Your task to perform on an android device: Open calendar and show me the third week of next month Image 0: 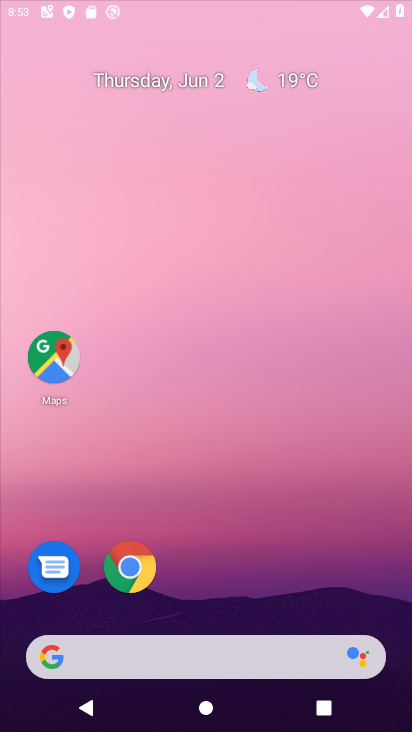
Step 0: press home button
Your task to perform on an android device: Open calendar and show me the third week of next month Image 1: 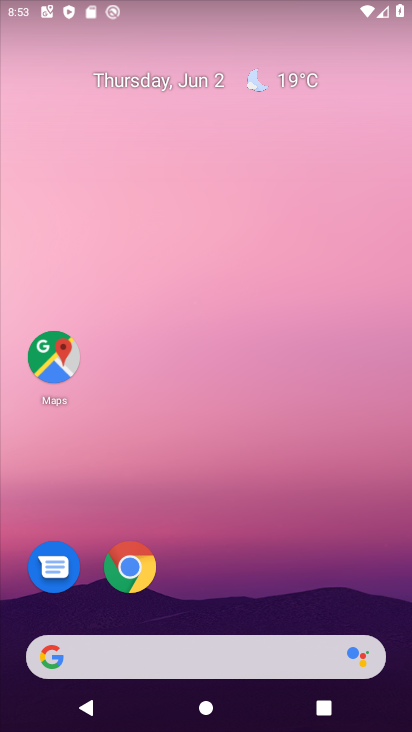
Step 1: drag from (219, 615) to (238, 86)
Your task to perform on an android device: Open calendar and show me the third week of next month Image 2: 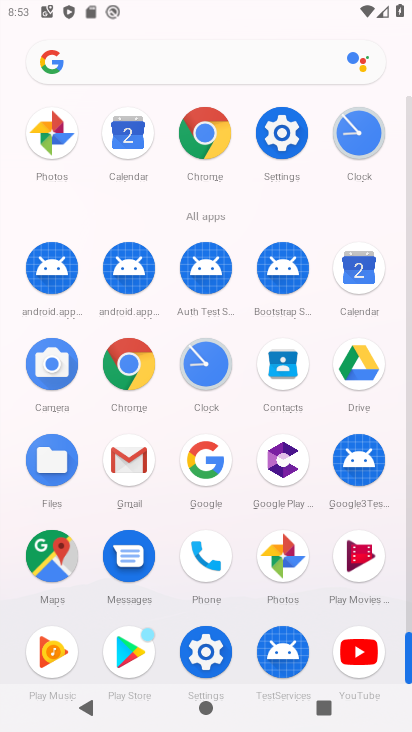
Step 2: click (357, 268)
Your task to perform on an android device: Open calendar and show me the third week of next month Image 3: 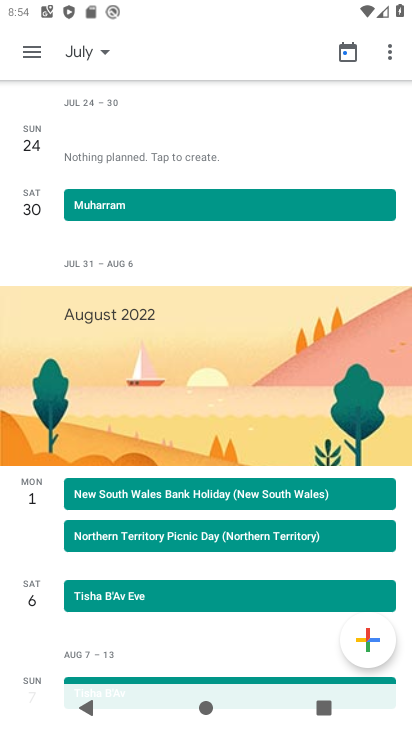
Step 3: click (32, 50)
Your task to perform on an android device: Open calendar and show me the third week of next month Image 4: 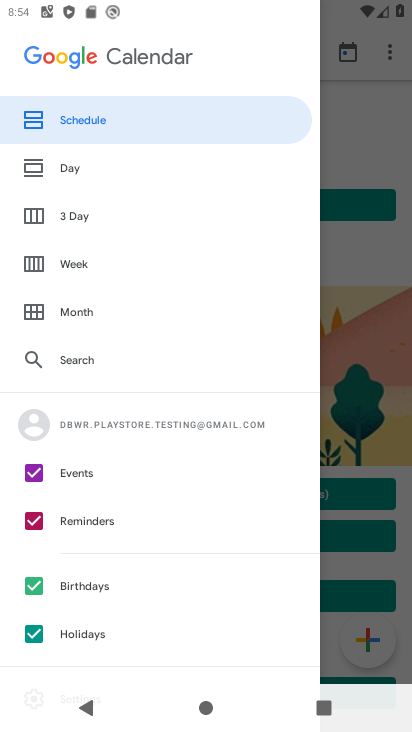
Step 4: click (74, 252)
Your task to perform on an android device: Open calendar and show me the third week of next month Image 5: 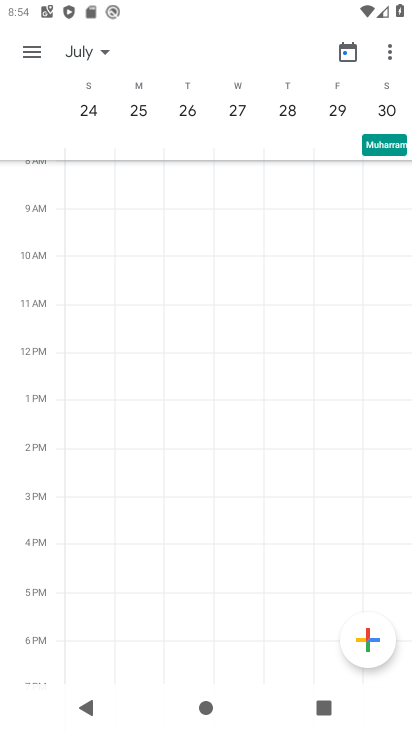
Step 5: drag from (81, 106) to (371, 113)
Your task to perform on an android device: Open calendar and show me the third week of next month Image 6: 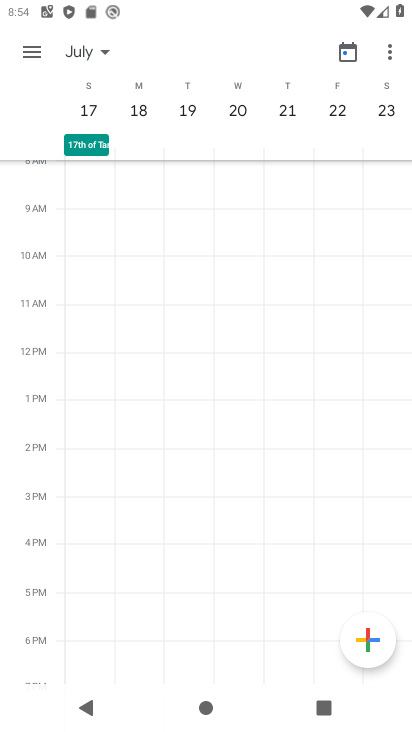
Step 6: click (84, 114)
Your task to perform on an android device: Open calendar and show me the third week of next month Image 7: 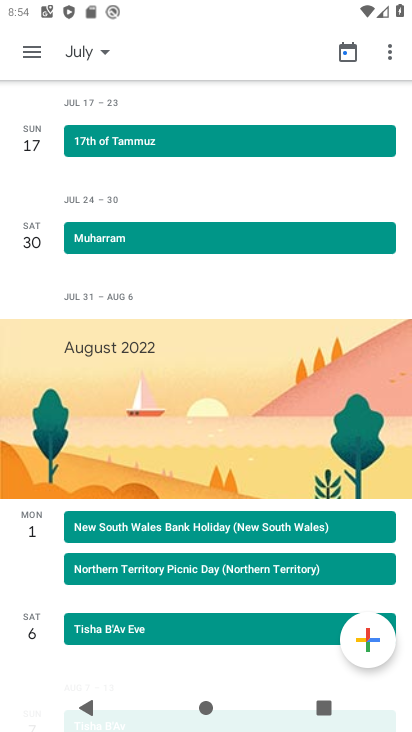
Step 7: task complete